Your task to perform on an android device: turn off wifi Image 0: 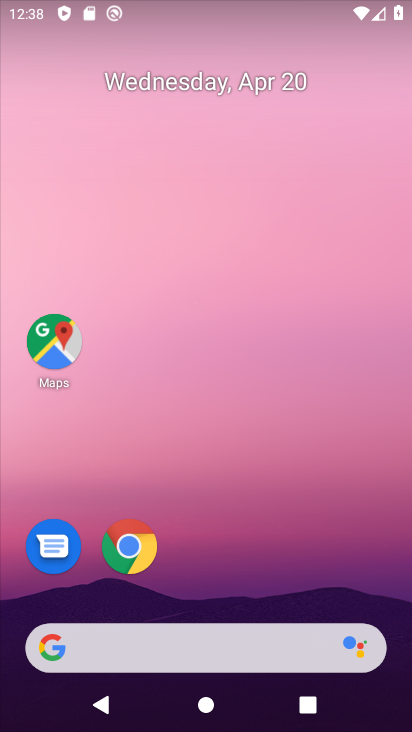
Step 0: drag from (270, 459) to (360, 61)
Your task to perform on an android device: turn off wifi Image 1: 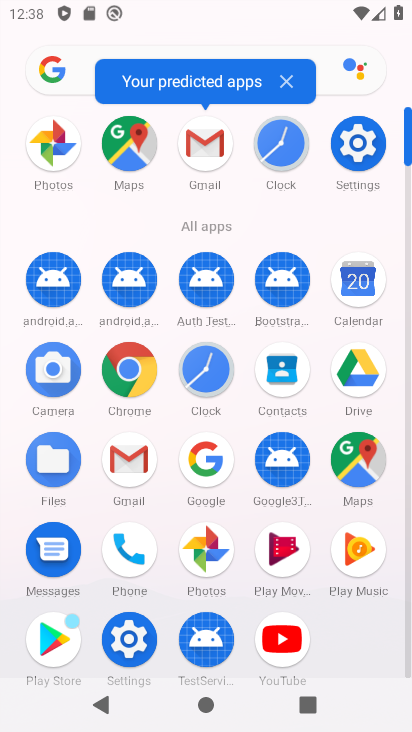
Step 1: click (348, 187)
Your task to perform on an android device: turn off wifi Image 2: 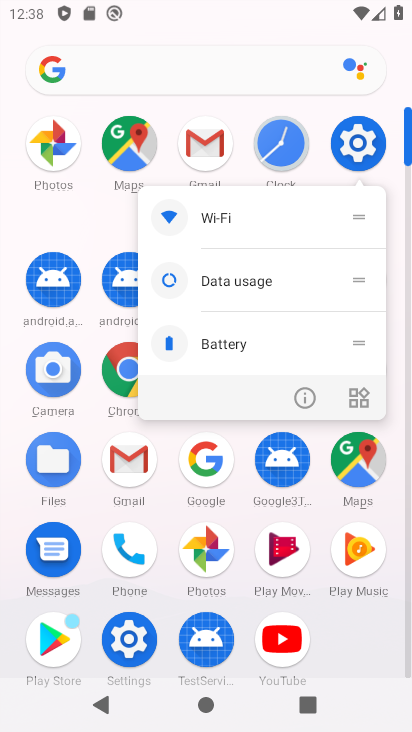
Step 2: click (379, 141)
Your task to perform on an android device: turn off wifi Image 3: 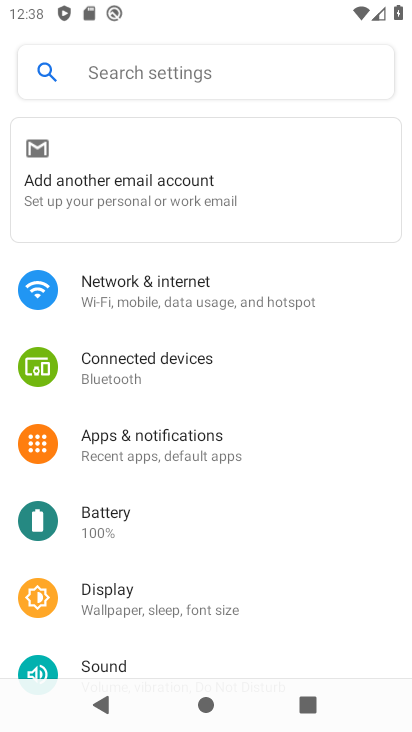
Step 3: click (260, 306)
Your task to perform on an android device: turn off wifi Image 4: 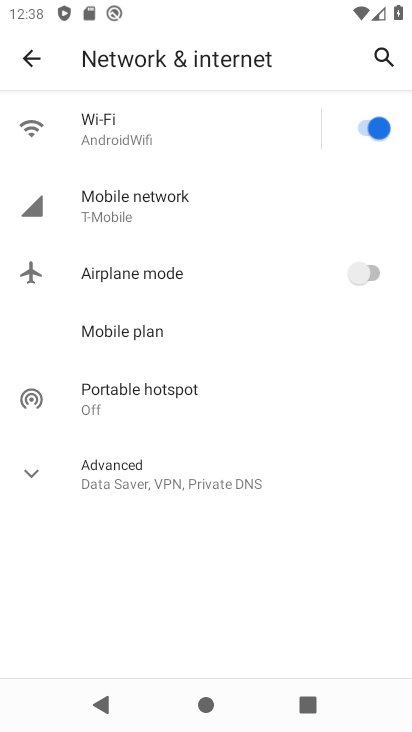
Step 4: click (374, 127)
Your task to perform on an android device: turn off wifi Image 5: 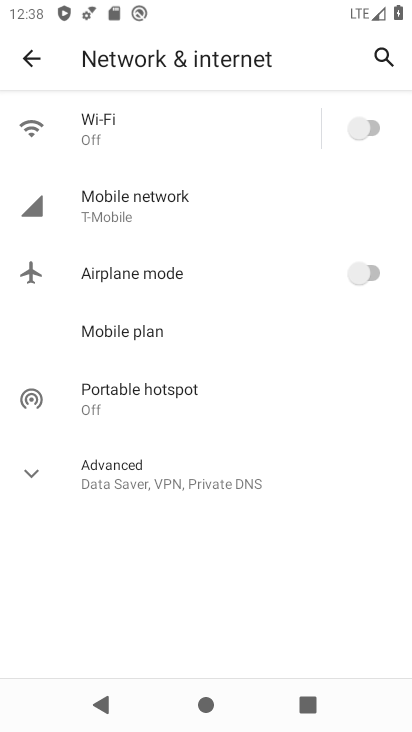
Step 5: task complete